Your task to perform on an android device: Go to Yahoo.com Image 0: 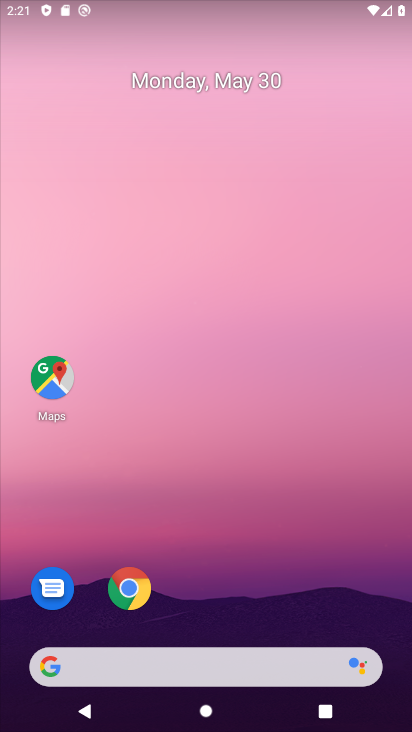
Step 0: click (134, 580)
Your task to perform on an android device: Go to Yahoo.com Image 1: 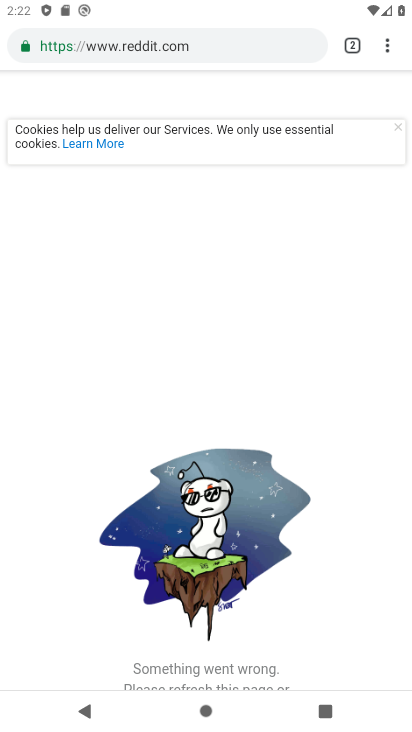
Step 1: click (386, 34)
Your task to perform on an android device: Go to Yahoo.com Image 2: 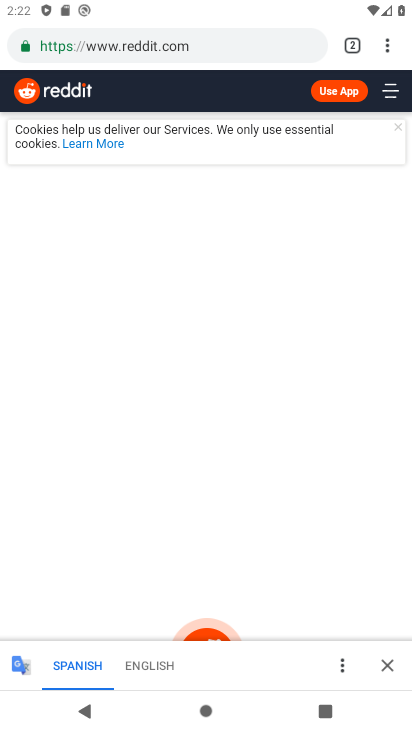
Step 2: click (384, 40)
Your task to perform on an android device: Go to Yahoo.com Image 3: 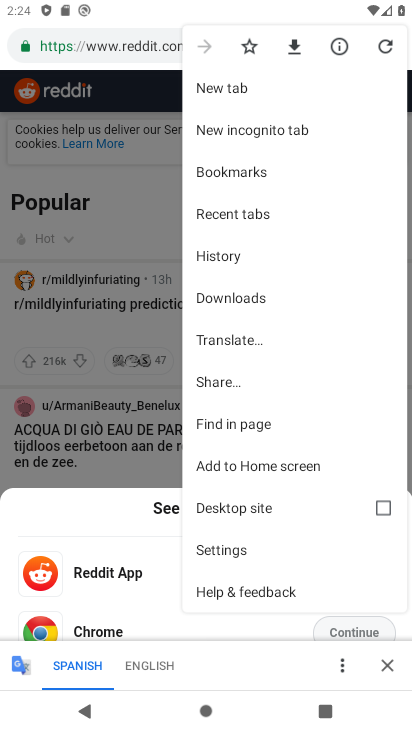
Step 3: click (224, 90)
Your task to perform on an android device: Go to Yahoo.com Image 4: 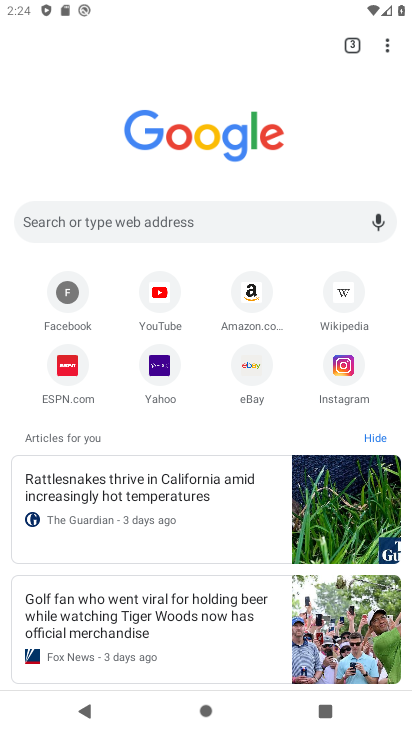
Step 4: click (157, 358)
Your task to perform on an android device: Go to Yahoo.com Image 5: 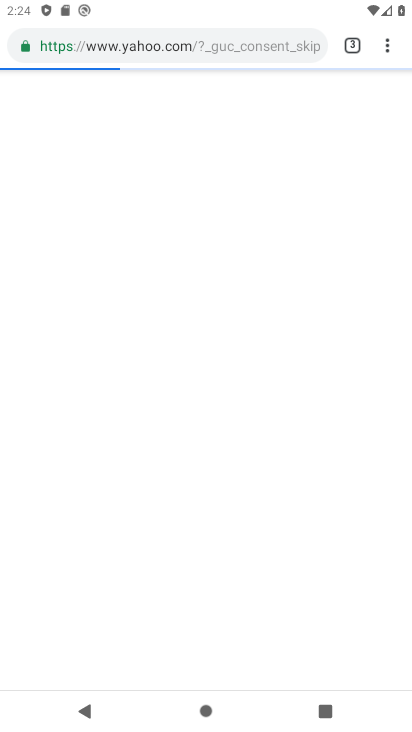
Step 5: task complete